Your task to perform on an android device: What's the weather today? Image 0: 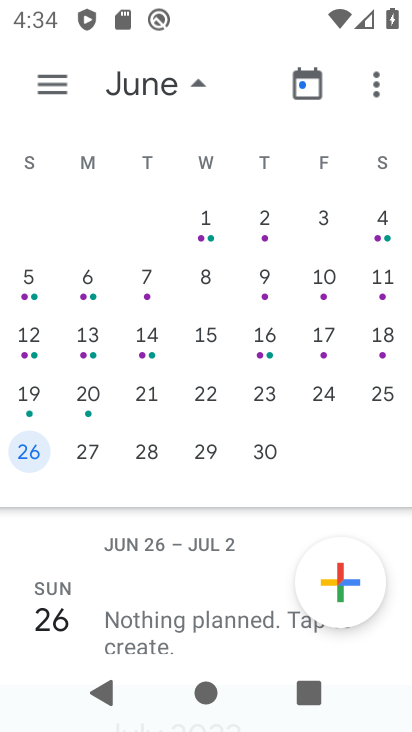
Step 0: press home button
Your task to perform on an android device: What's the weather today? Image 1: 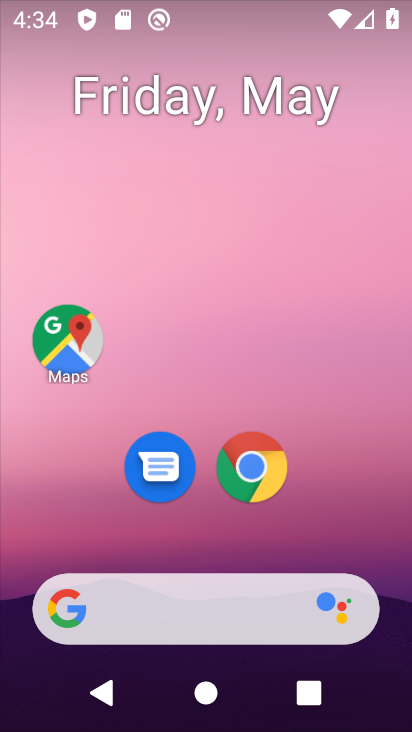
Step 1: click (263, 467)
Your task to perform on an android device: What's the weather today? Image 2: 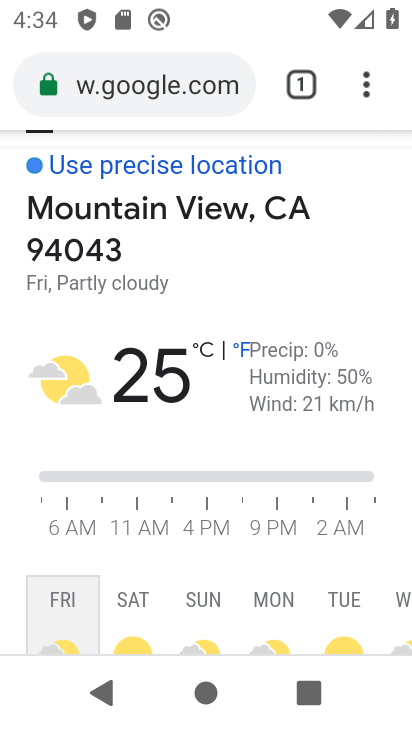
Step 2: task complete